Your task to perform on an android device: Search for sushi restaurants on Maps Image 0: 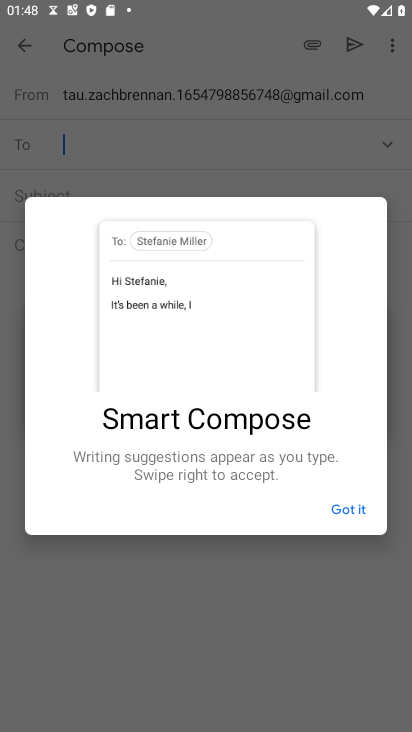
Step 0: press home button
Your task to perform on an android device: Search for sushi restaurants on Maps Image 1: 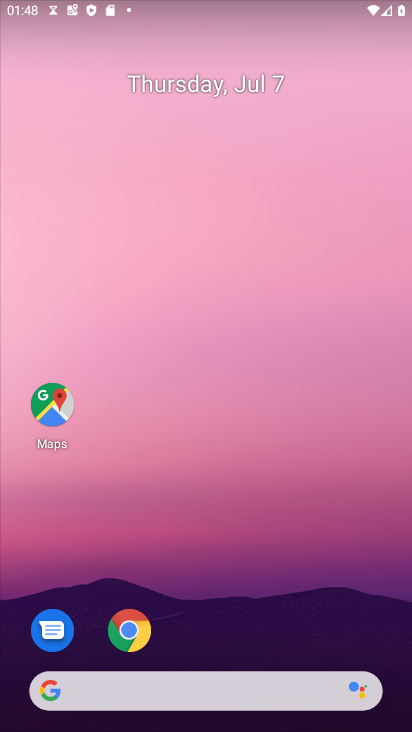
Step 1: click (39, 412)
Your task to perform on an android device: Search for sushi restaurants on Maps Image 2: 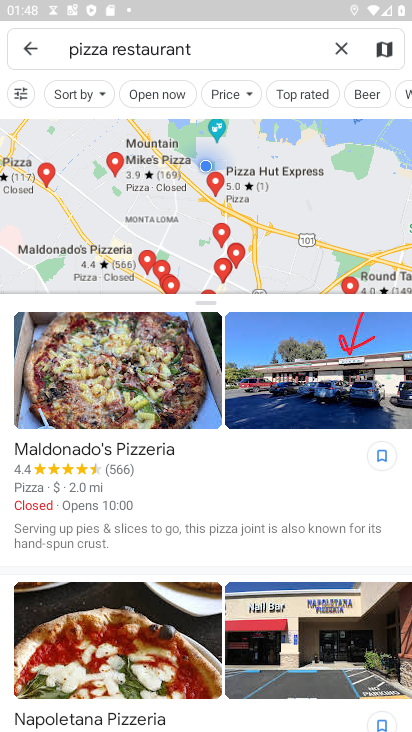
Step 2: click (344, 51)
Your task to perform on an android device: Search for sushi restaurants on Maps Image 3: 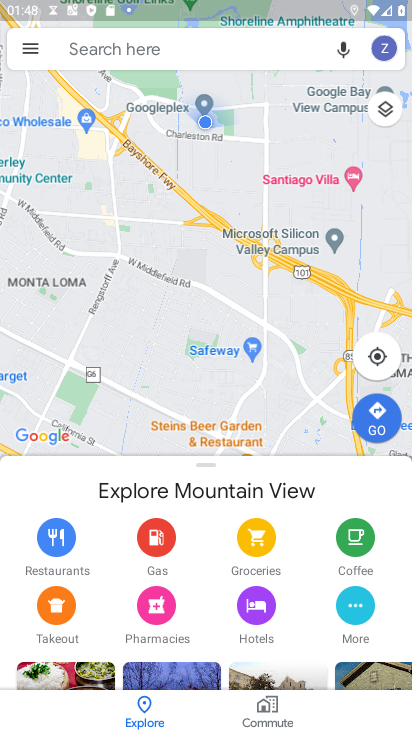
Step 3: click (279, 45)
Your task to perform on an android device: Search for sushi restaurants on Maps Image 4: 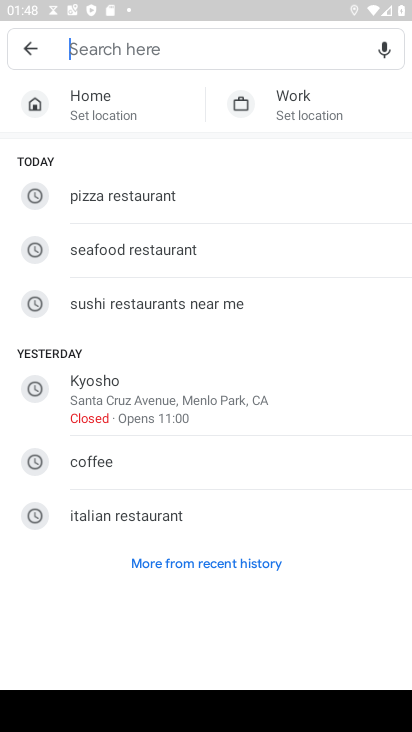
Step 4: click (241, 294)
Your task to perform on an android device: Search for sushi restaurants on Maps Image 5: 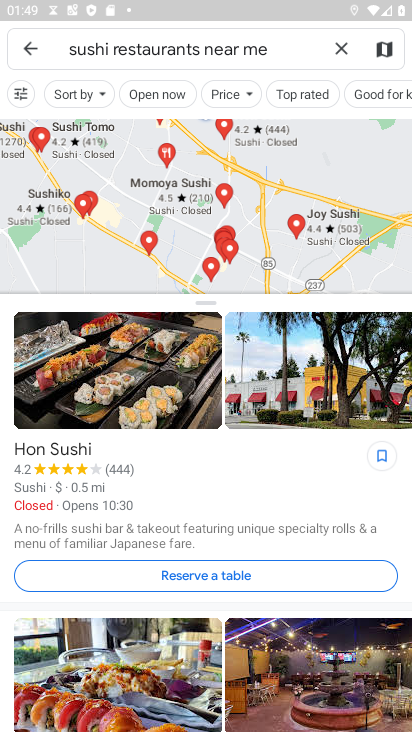
Step 5: task complete